Your task to perform on an android device: turn on notifications settings in the gmail app Image 0: 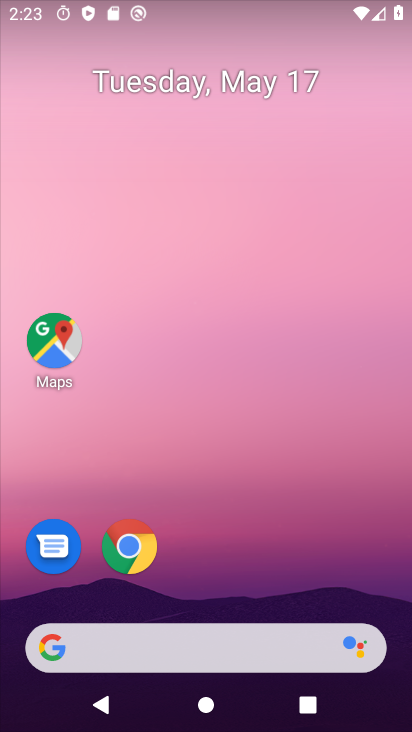
Step 0: drag from (225, 605) to (281, 57)
Your task to perform on an android device: turn on notifications settings in the gmail app Image 1: 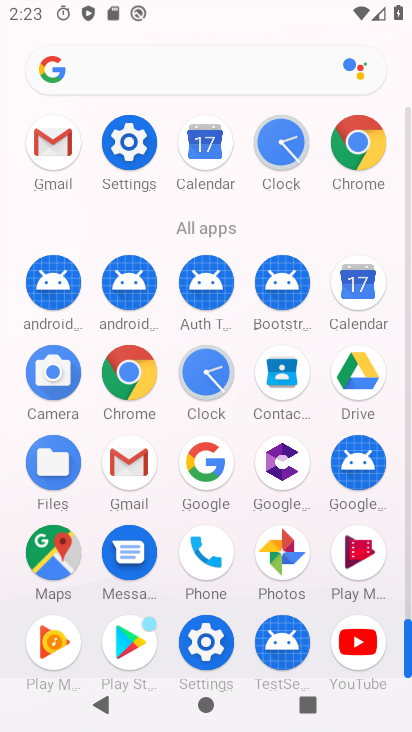
Step 1: click (149, 477)
Your task to perform on an android device: turn on notifications settings in the gmail app Image 2: 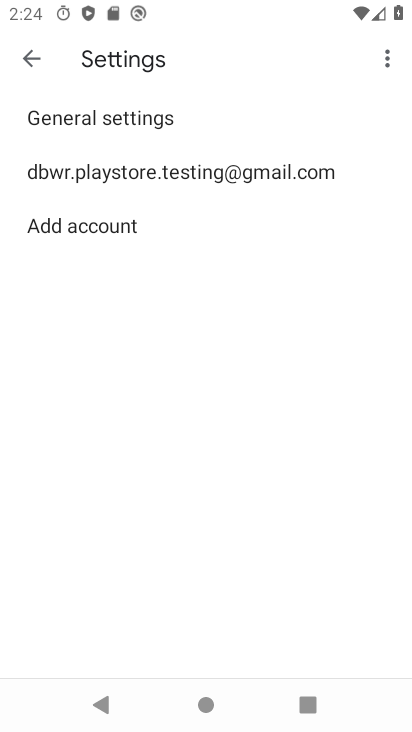
Step 2: click (174, 118)
Your task to perform on an android device: turn on notifications settings in the gmail app Image 3: 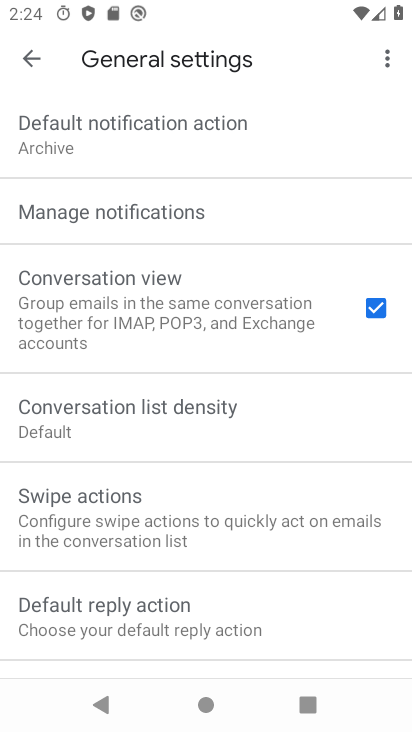
Step 3: click (181, 214)
Your task to perform on an android device: turn on notifications settings in the gmail app Image 4: 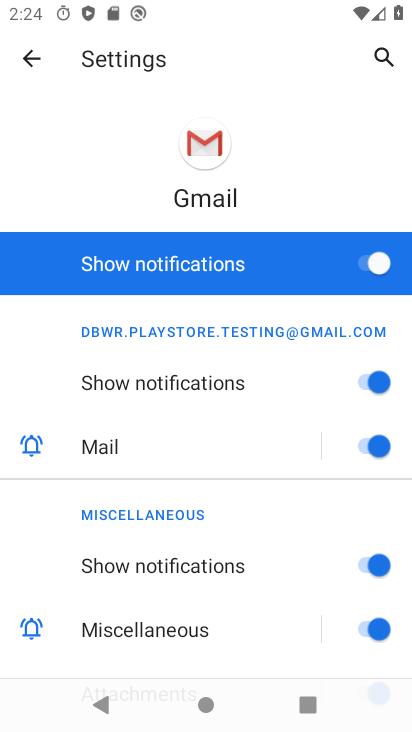
Step 4: task complete